Your task to perform on an android device: Search for pizza restaurants on Maps Image 0: 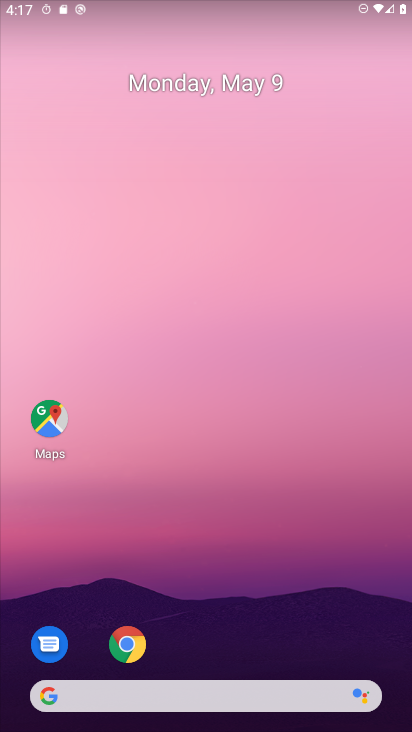
Step 0: drag from (279, 642) to (188, 177)
Your task to perform on an android device: Search for pizza restaurants on Maps Image 1: 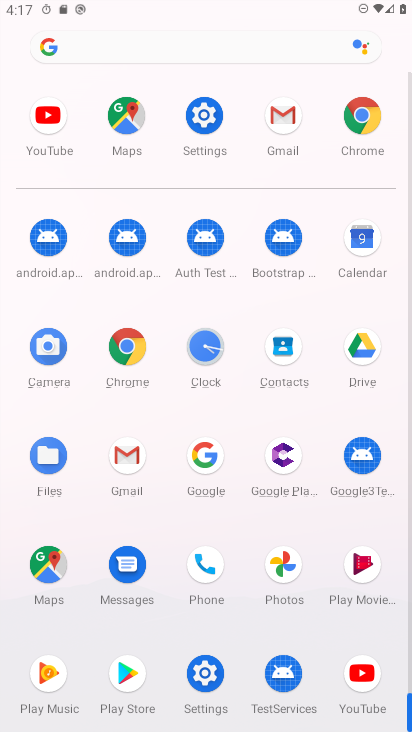
Step 1: click (136, 144)
Your task to perform on an android device: Search for pizza restaurants on Maps Image 2: 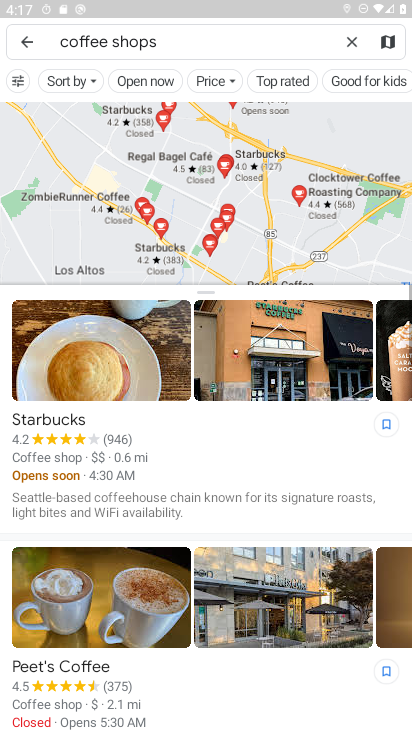
Step 2: click (351, 40)
Your task to perform on an android device: Search for pizza restaurants on Maps Image 3: 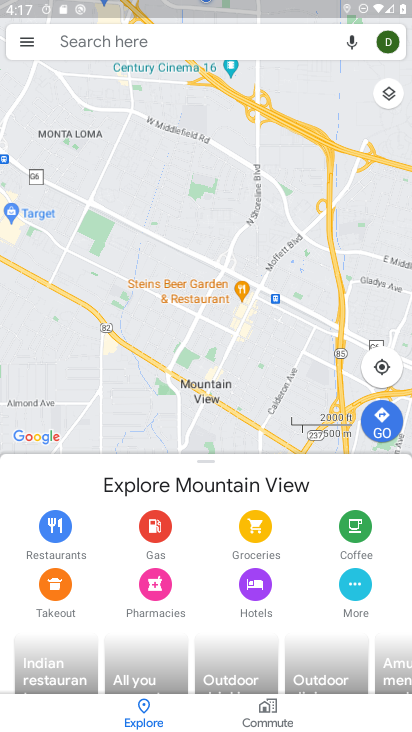
Step 3: click (215, 41)
Your task to perform on an android device: Search for pizza restaurants on Maps Image 4: 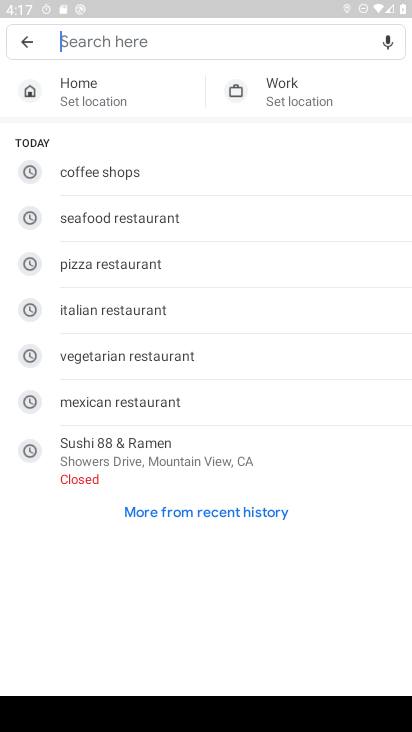
Step 4: click (147, 288)
Your task to perform on an android device: Search for pizza restaurants on Maps Image 5: 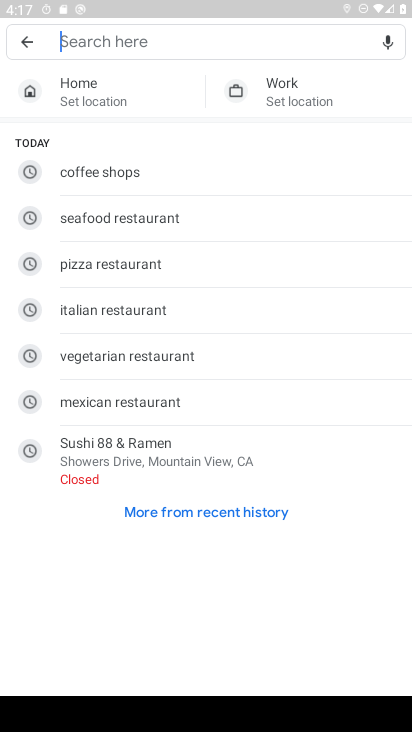
Step 5: click (144, 269)
Your task to perform on an android device: Search for pizza restaurants on Maps Image 6: 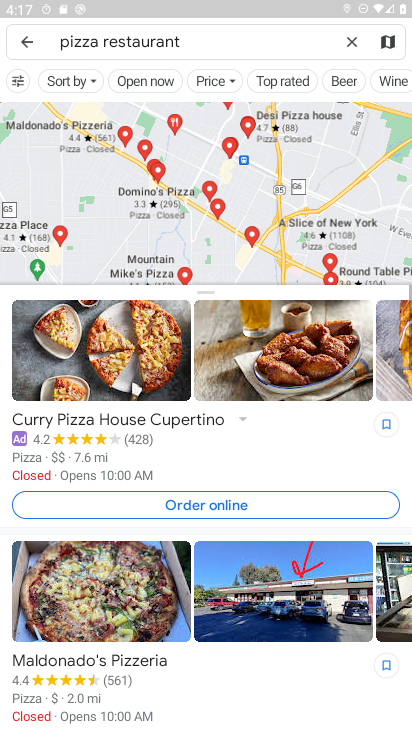
Step 6: task complete